Your task to perform on an android device: set an alarm Image 0: 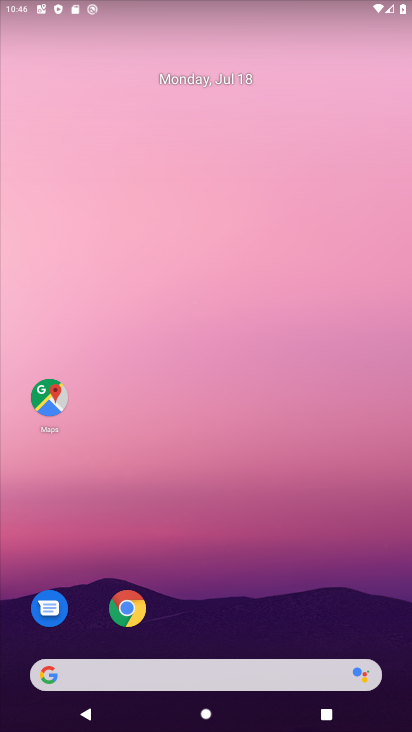
Step 0: drag from (203, 590) to (222, 118)
Your task to perform on an android device: set an alarm Image 1: 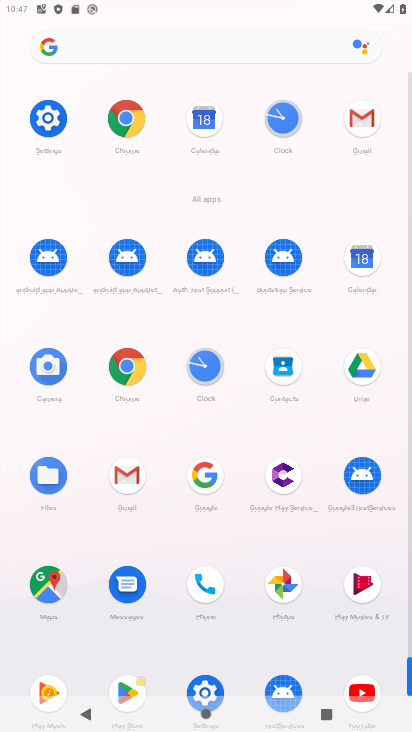
Step 1: click (200, 389)
Your task to perform on an android device: set an alarm Image 2: 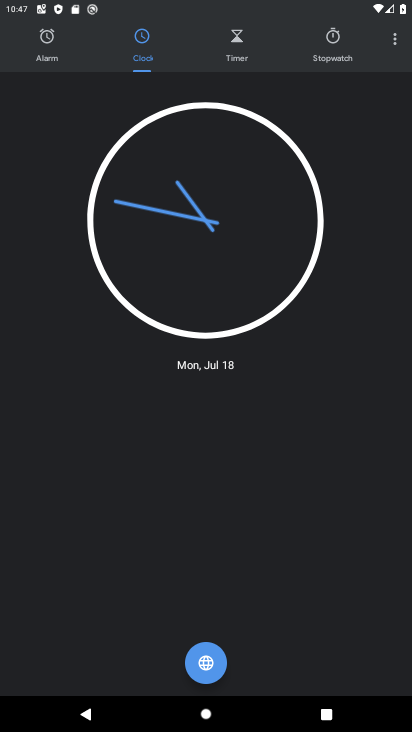
Step 2: click (55, 53)
Your task to perform on an android device: set an alarm Image 3: 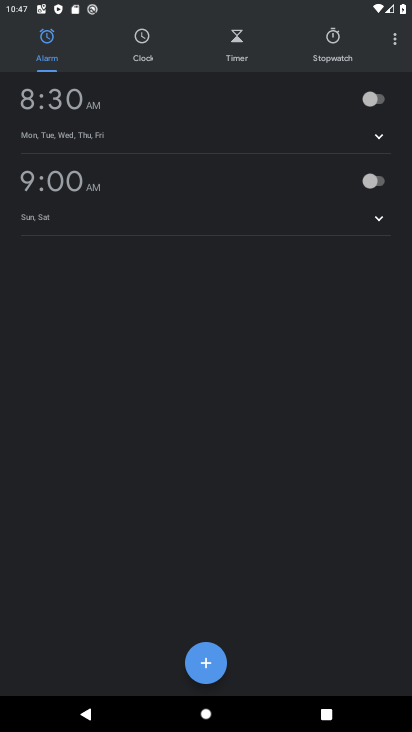
Step 3: click (48, 179)
Your task to perform on an android device: set an alarm Image 4: 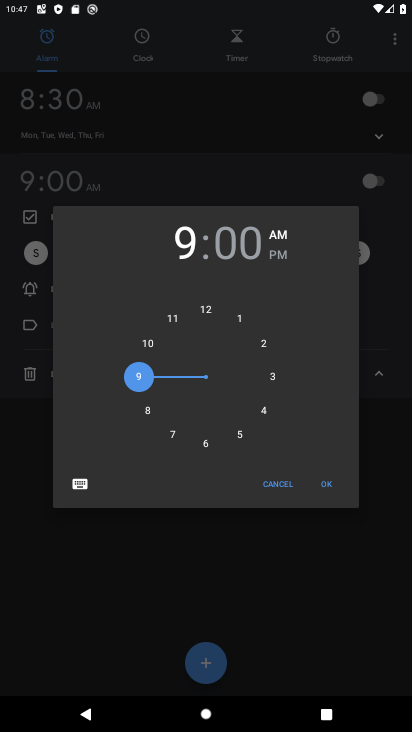
Step 4: click (140, 349)
Your task to perform on an android device: set an alarm Image 5: 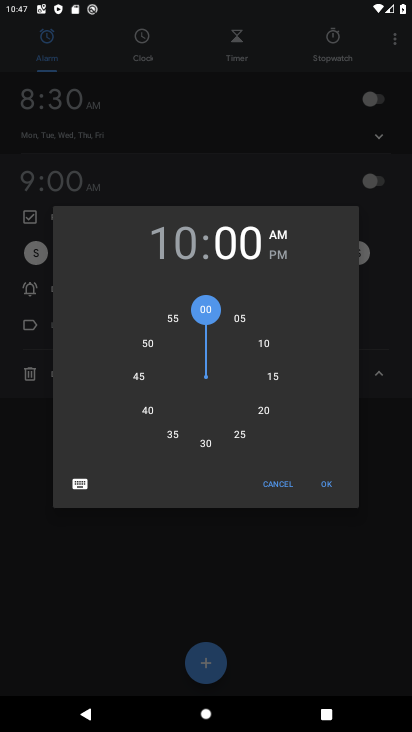
Step 5: click (268, 417)
Your task to perform on an android device: set an alarm Image 6: 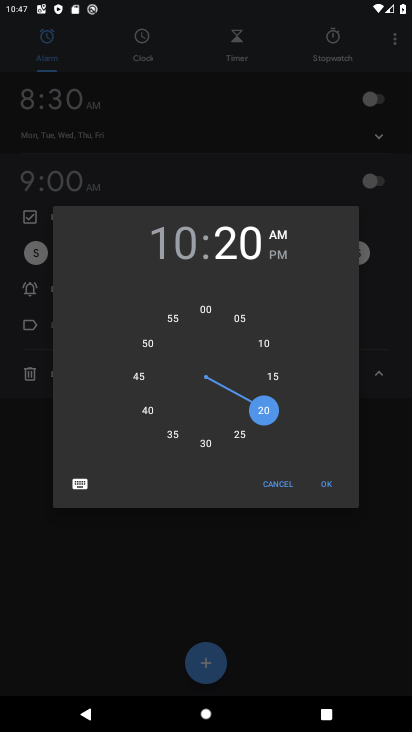
Step 6: click (223, 246)
Your task to perform on an android device: set an alarm Image 7: 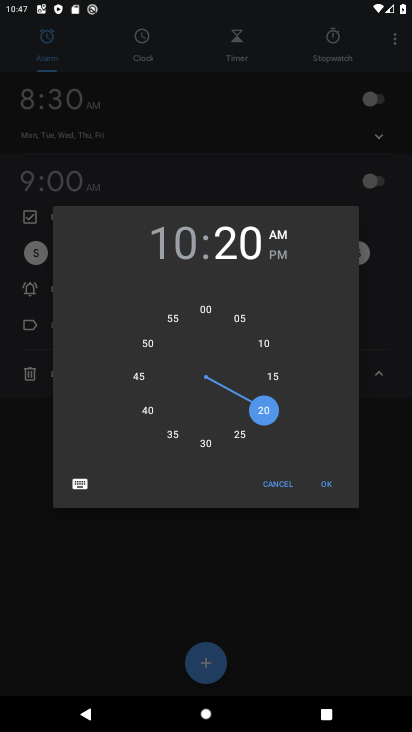
Step 7: click (279, 256)
Your task to perform on an android device: set an alarm Image 8: 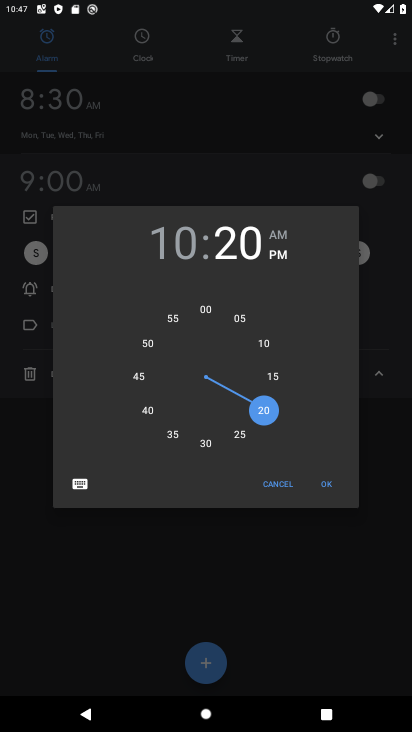
Step 8: click (328, 477)
Your task to perform on an android device: set an alarm Image 9: 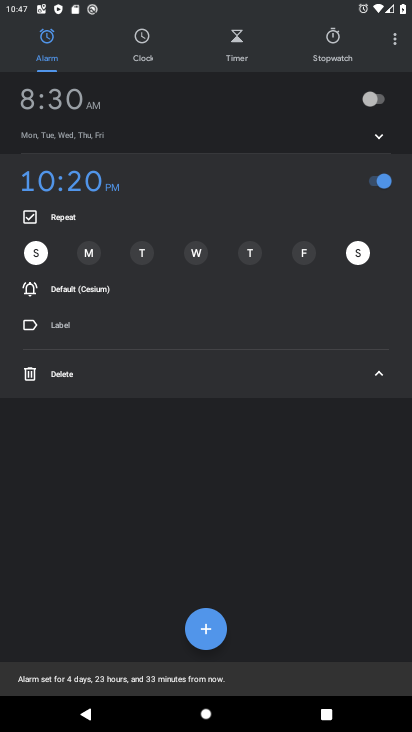
Step 9: click (135, 255)
Your task to perform on an android device: set an alarm Image 10: 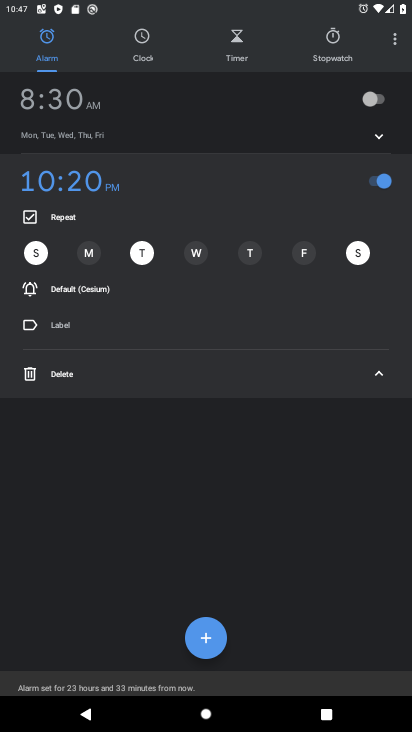
Step 10: task complete